Your task to perform on an android device: Do I have any events today? Image 0: 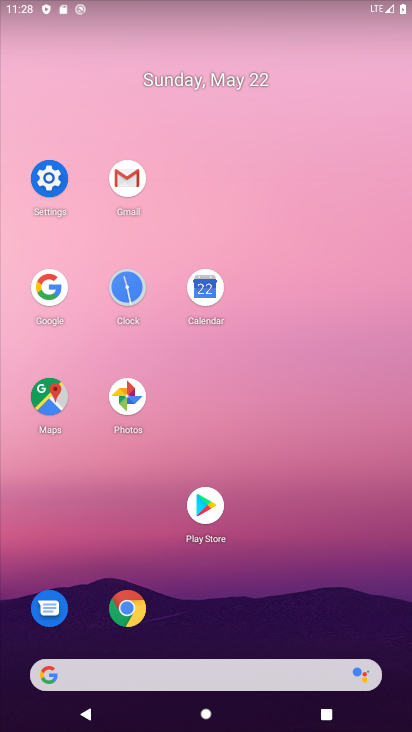
Step 0: click (191, 294)
Your task to perform on an android device: Do I have any events today? Image 1: 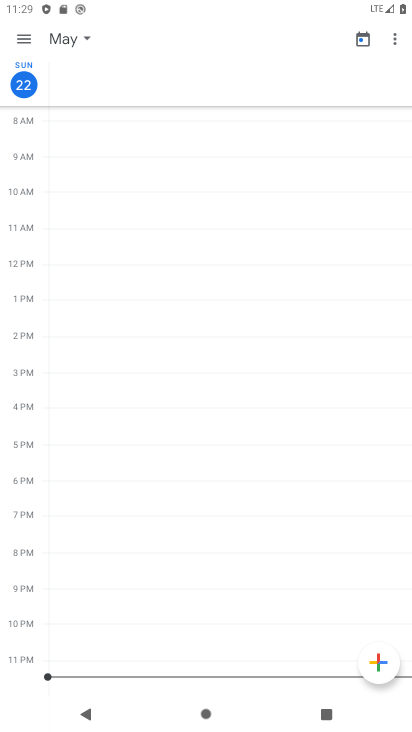
Step 1: click (30, 38)
Your task to perform on an android device: Do I have any events today? Image 2: 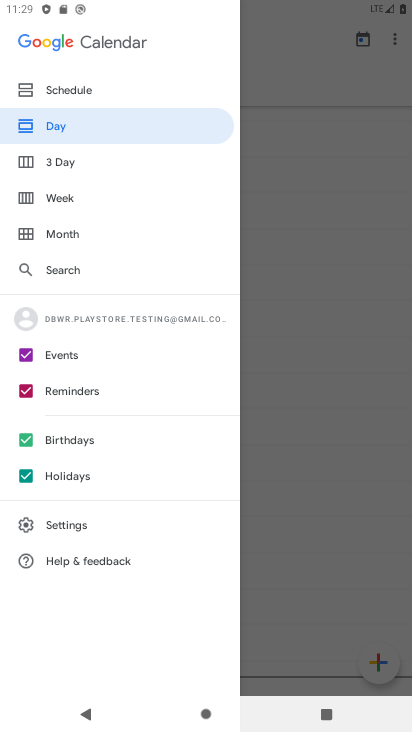
Step 2: click (111, 163)
Your task to perform on an android device: Do I have any events today? Image 3: 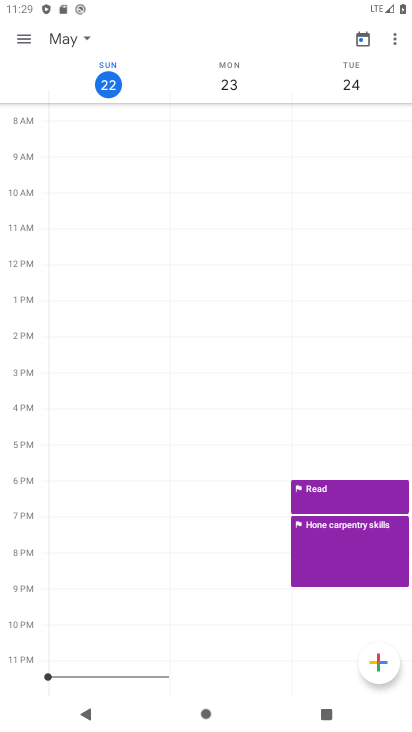
Step 3: click (343, 81)
Your task to perform on an android device: Do I have any events today? Image 4: 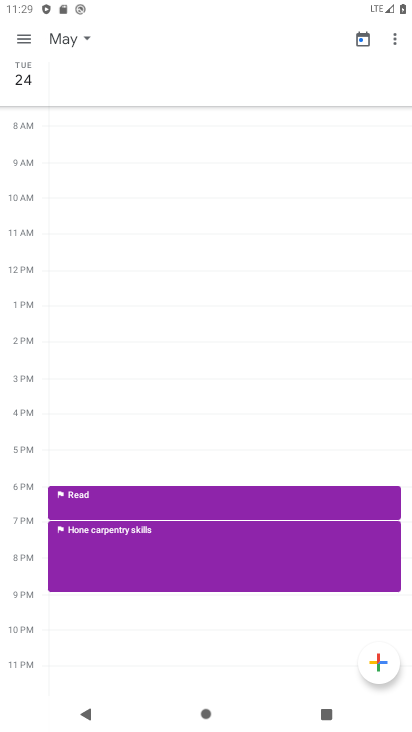
Step 4: task complete